Your task to perform on an android device: turn off smart reply in the gmail app Image 0: 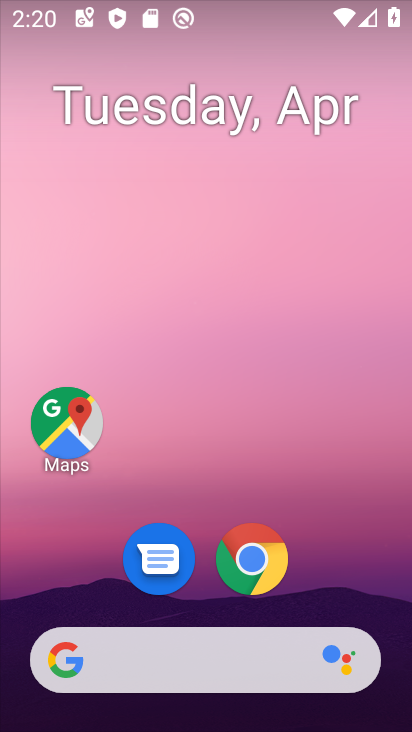
Step 0: click (261, 180)
Your task to perform on an android device: turn off smart reply in the gmail app Image 1: 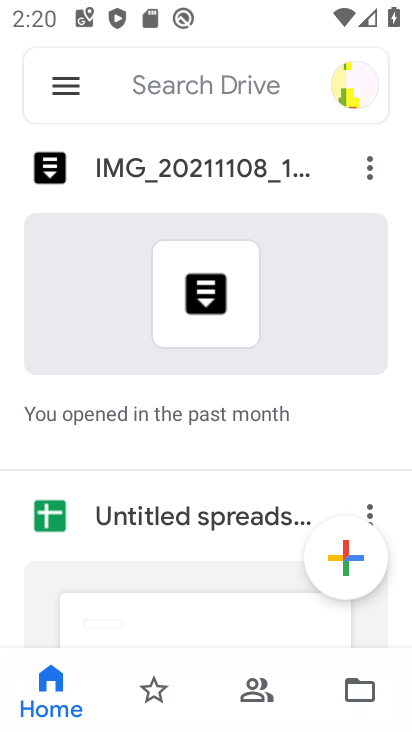
Step 1: press back button
Your task to perform on an android device: turn off smart reply in the gmail app Image 2: 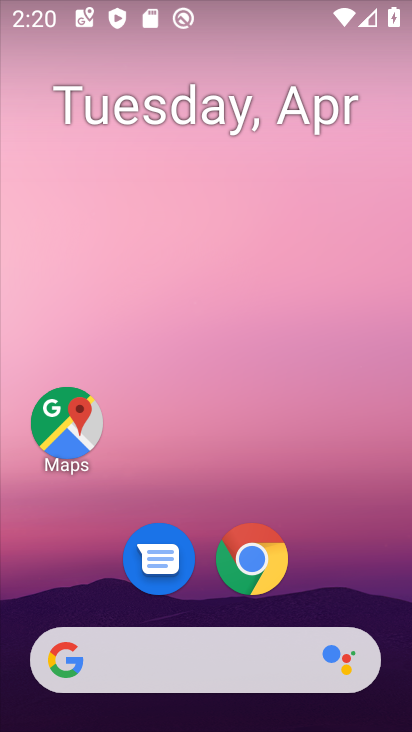
Step 2: drag from (218, 507) to (309, 67)
Your task to perform on an android device: turn off smart reply in the gmail app Image 3: 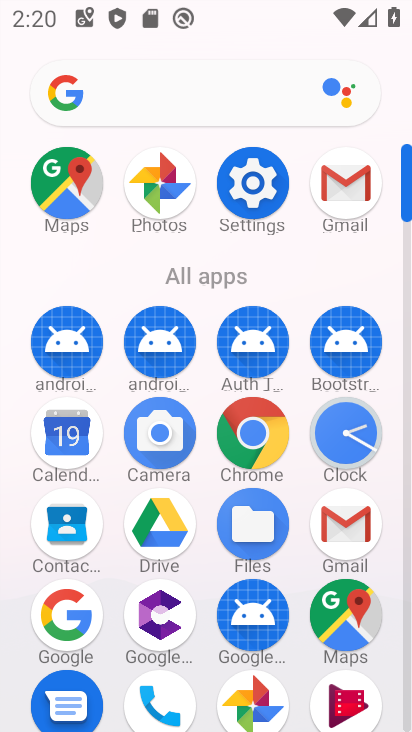
Step 3: click (352, 532)
Your task to perform on an android device: turn off smart reply in the gmail app Image 4: 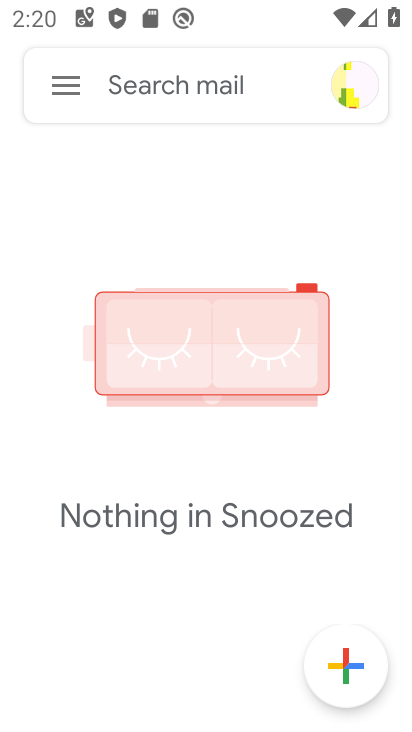
Step 4: click (72, 93)
Your task to perform on an android device: turn off smart reply in the gmail app Image 5: 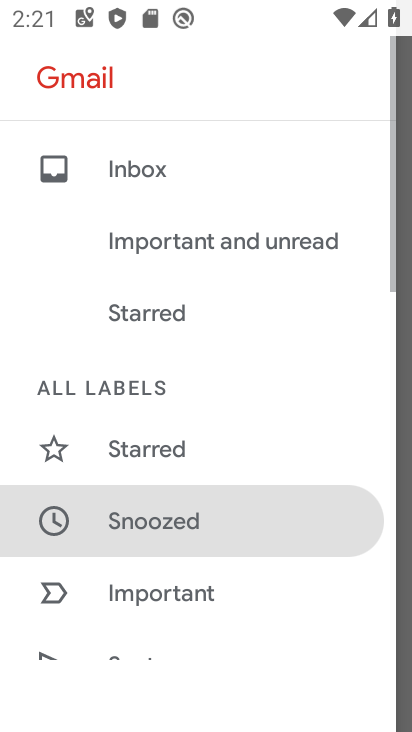
Step 5: drag from (168, 559) to (300, 240)
Your task to perform on an android device: turn off smart reply in the gmail app Image 6: 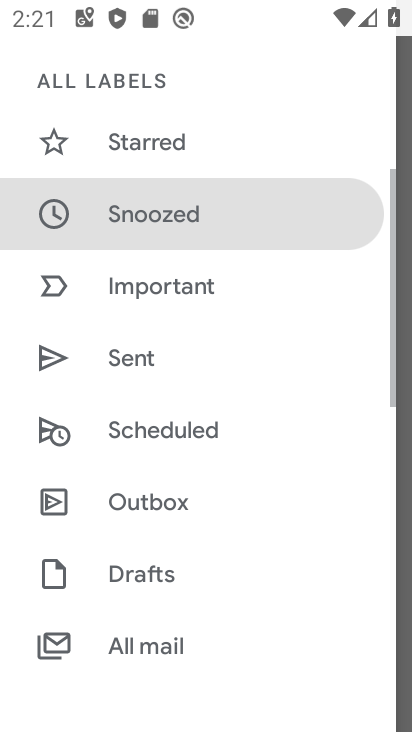
Step 6: drag from (233, 487) to (332, 210)
Your task to perform on an android device: turn off smart reply in the gmail app Image 7: 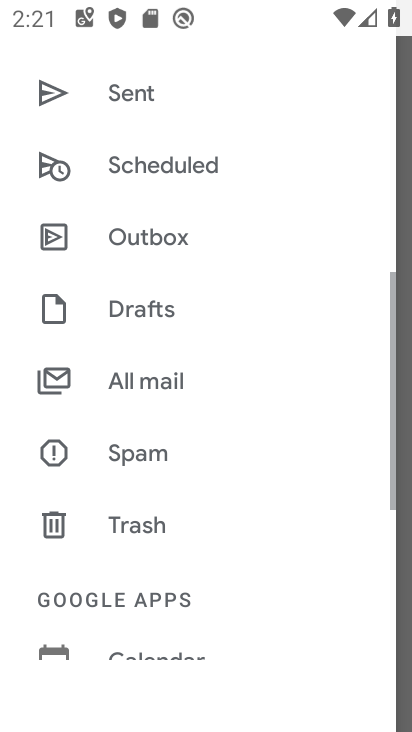
Step 7: drag from (166, 565) to (315, 206)
Your task to perform on an android device: turn off smart reply in the gmail app Image 8: 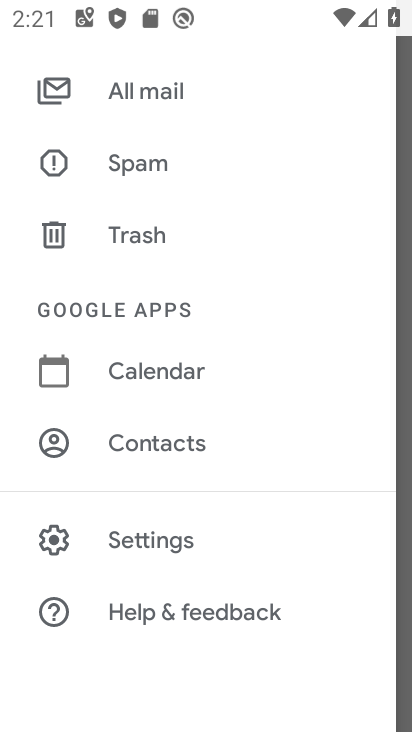
Step 8: click (181, 548)
Your task to perform on an android device: turn off smart reply in the gmail app Image 9: 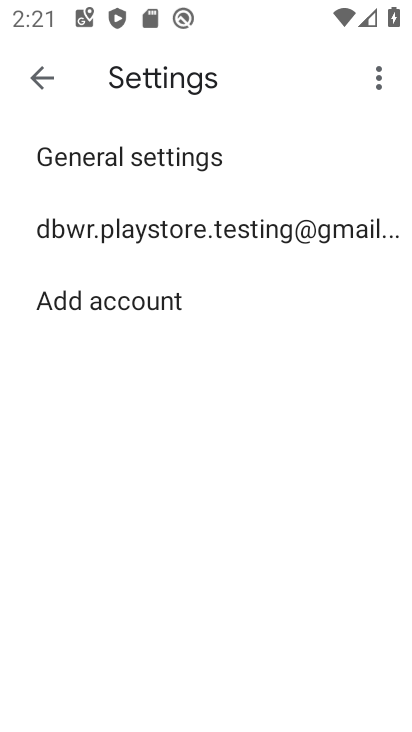
Step 9: click (236, 238)
Your task to perform on an android device: turn off smart reply in the gmail app Image 10: 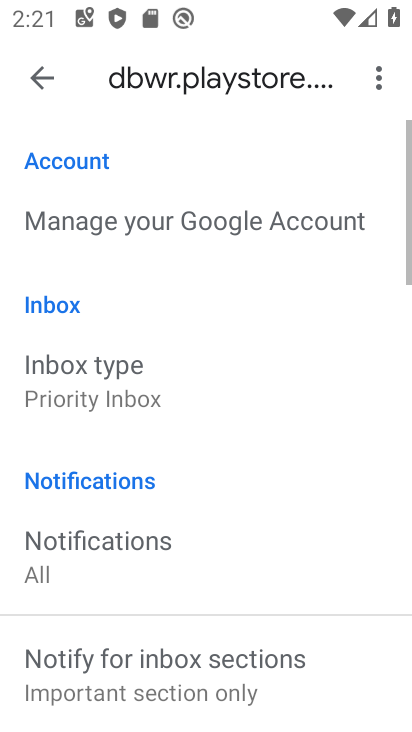
Step 10: drag from (134, 611) to (329, 167)
Your task to perform on an android device: turn off smart reply in the gmail app Image 11: 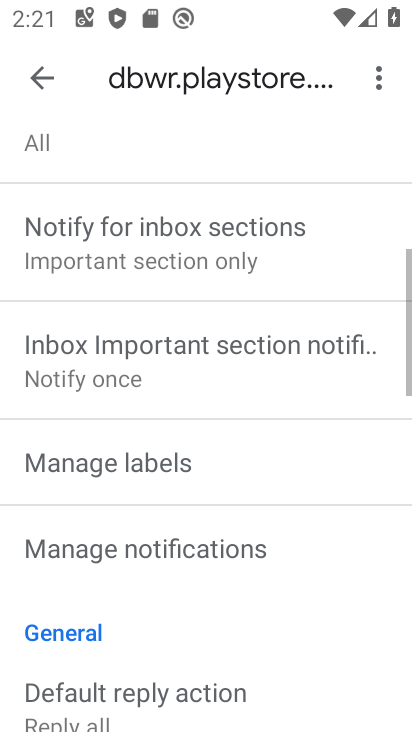
Step 11: drag from (190, 578) to (325, 205)
Your task to perform on an android device: turn off smart reply in the gmail app Image 12: 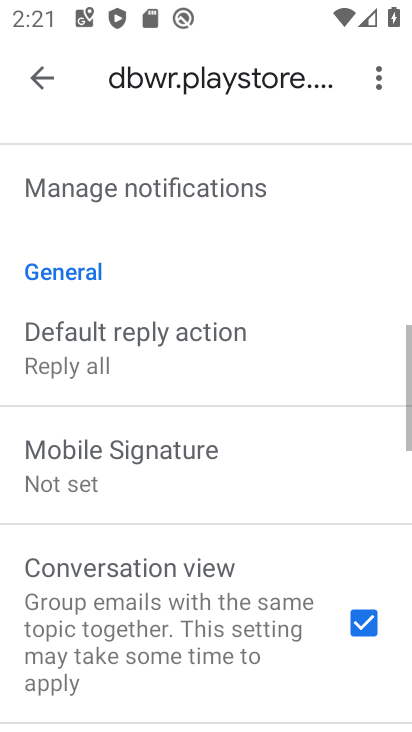
Step 12: drag from (192, 586) to (307, 208)
Your task to perform on an android device: turn off smart reply in the gmail app Image 13: 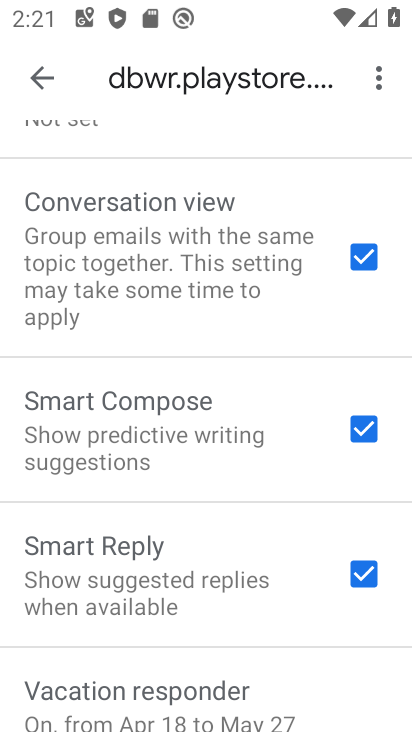
Step 13: click (360, 575)
Your task to perform on an android device: turn off smart reply in the gmail app Image 14: 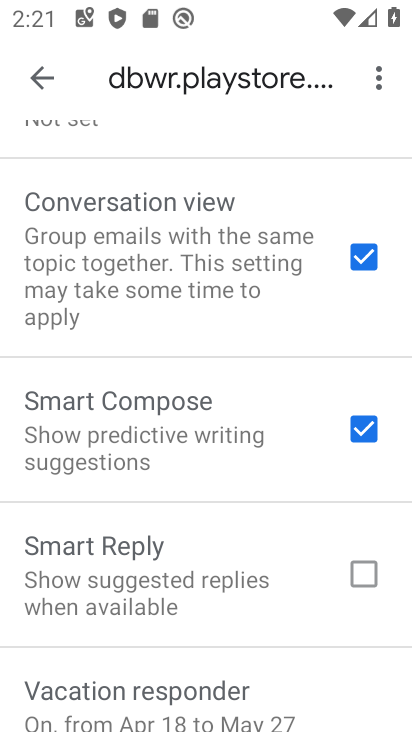
Step 14: task complete